Your task to perform on an android device: Show the shopping cart on target. Search for "logitech g502" on target, select the first entry, add it to the cart, then select checkout. Image 0: 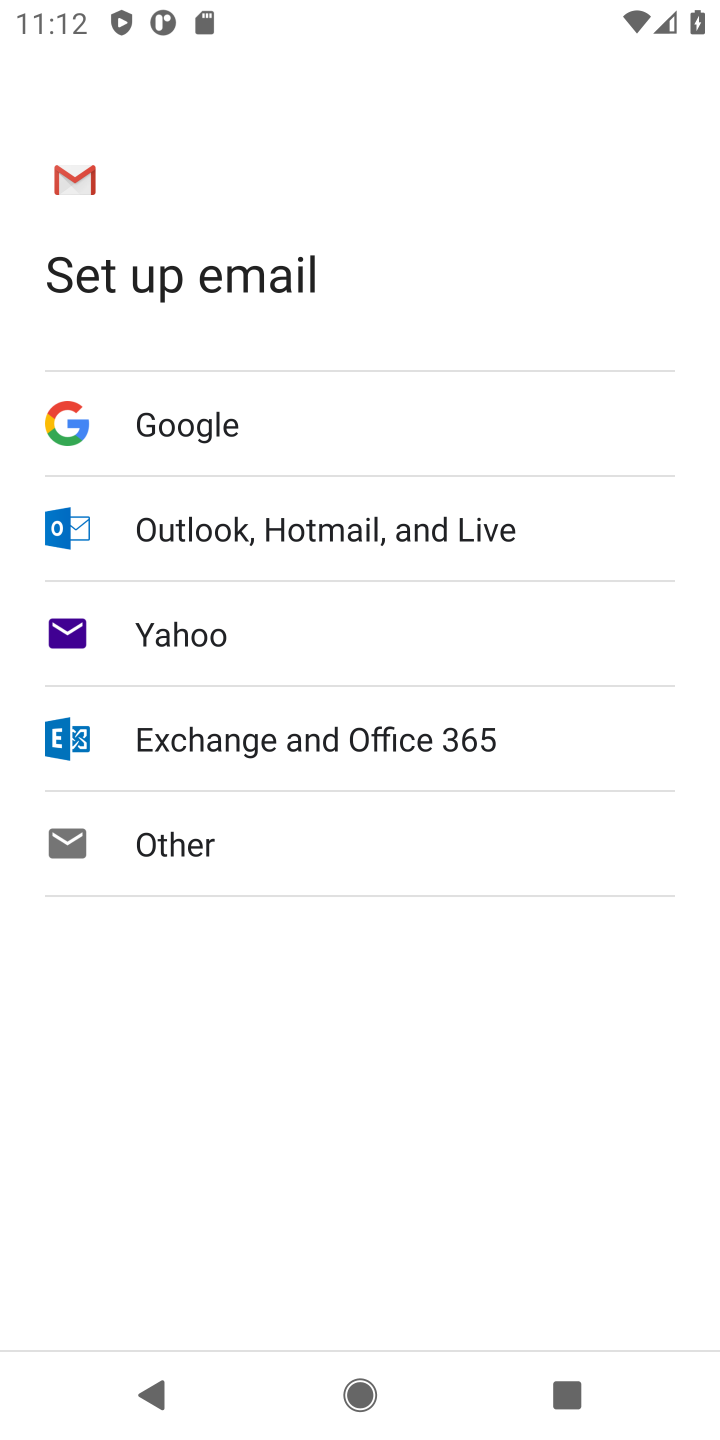
Step 0: press home button
Your task to perform on an android device: Show the shopping cart on target. Search for "logitech g502" on target, select the first entry, add it to the cart, then select checkout. Image 1: 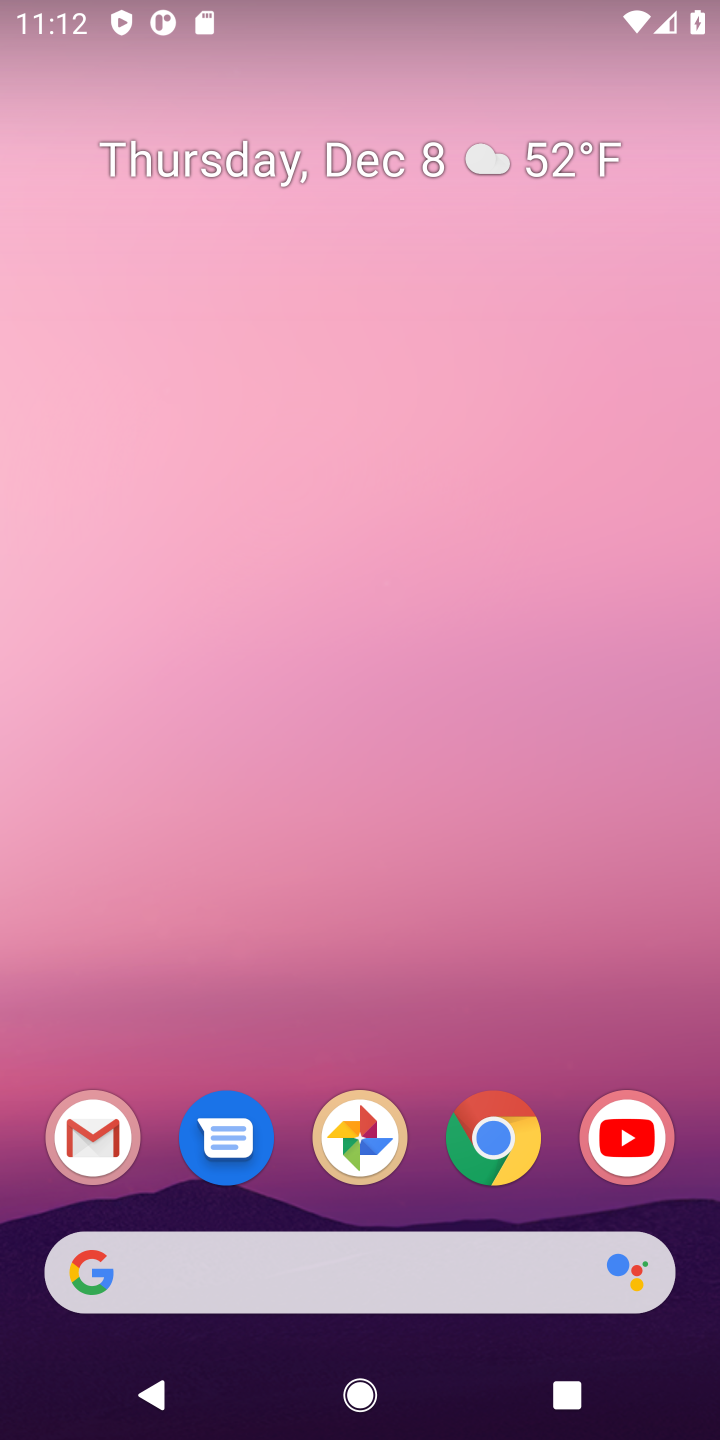
Step 1: click (494, 1140)
Your task to perform on an android device: Show the shopping cart on target. Search for "logitech g502" on target, select the first entry, add it to the cart, then select checkout. Image 2: 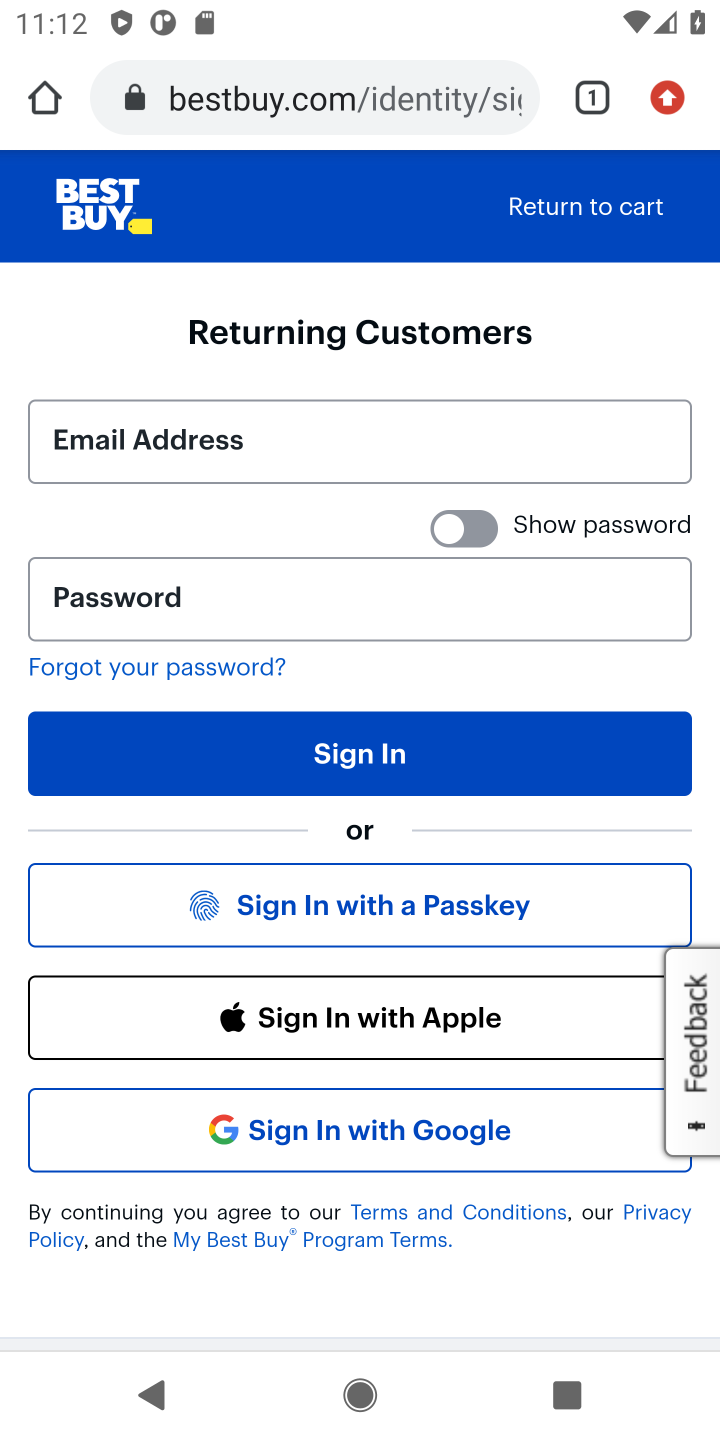
Step 2: click (328, 83)
Your task to perform on an android device: Show the shopping cart on target. Search for "logitech g502" on target, select the first entry, add it to the cart, then select checkout. Image 3: 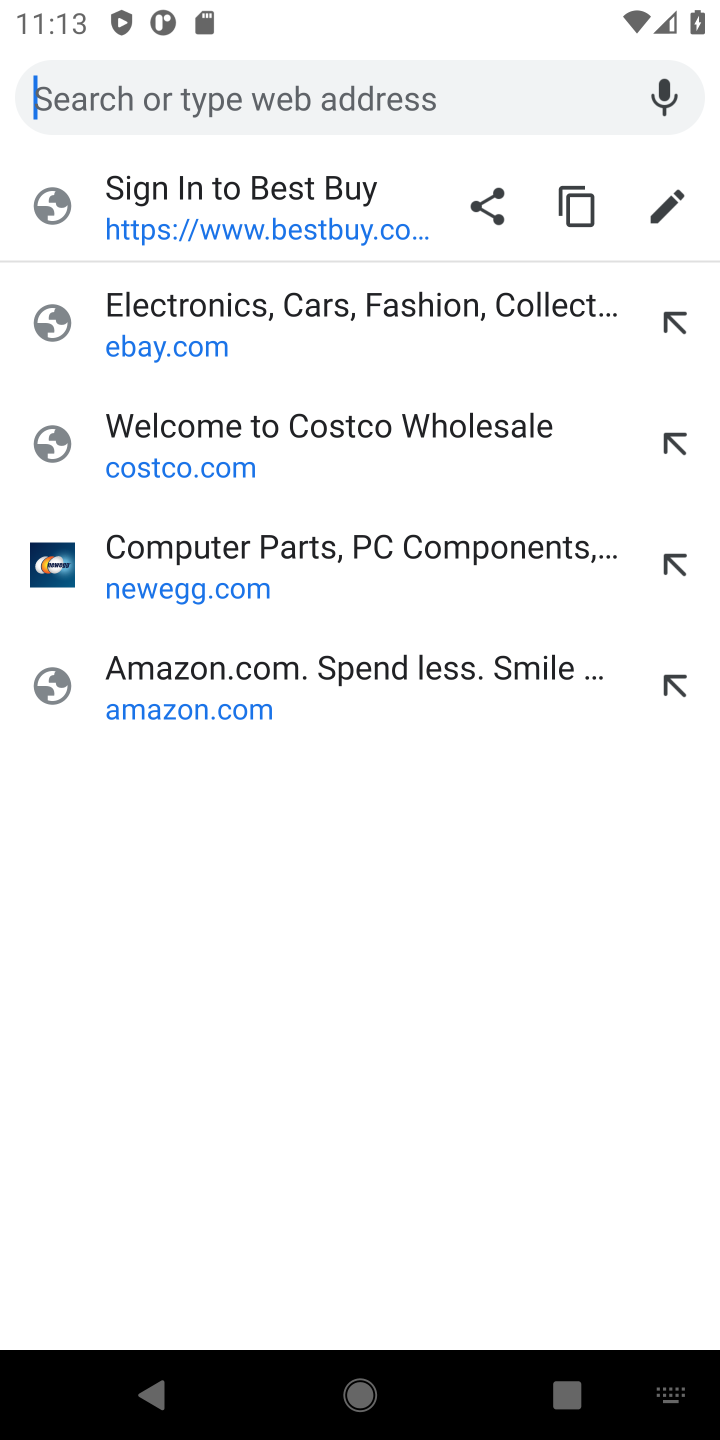
Step 3: type "target"
Your task to perform on an android device: Show the shopping cart on target. Search for "logitech g502" on target, select the first entry, add it to the cart, then select checkout. Image 4: 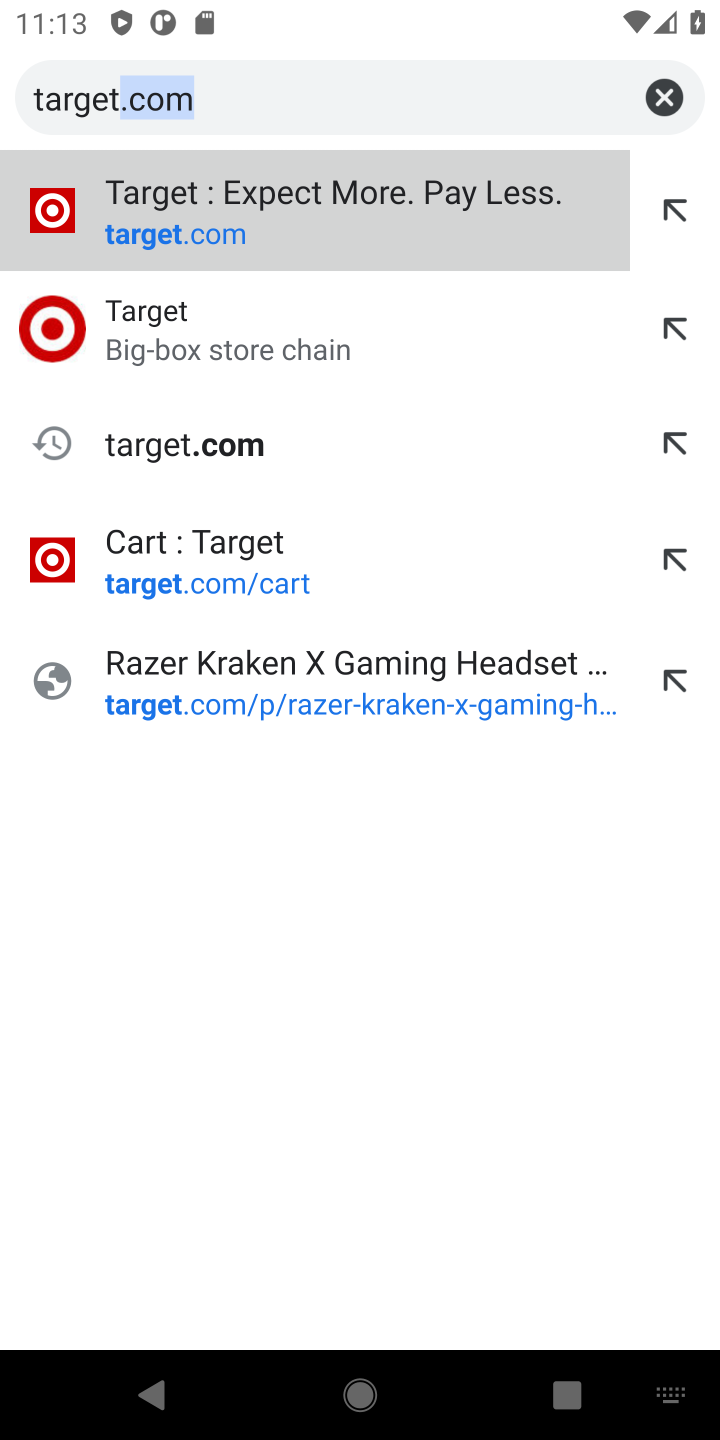
Step 4: press enter
Your task to perform on an android device: Show the shopping cart on target. Search for "logitech g502" on target, select the first entry, add it to the cart, then select checkout. Image 5: 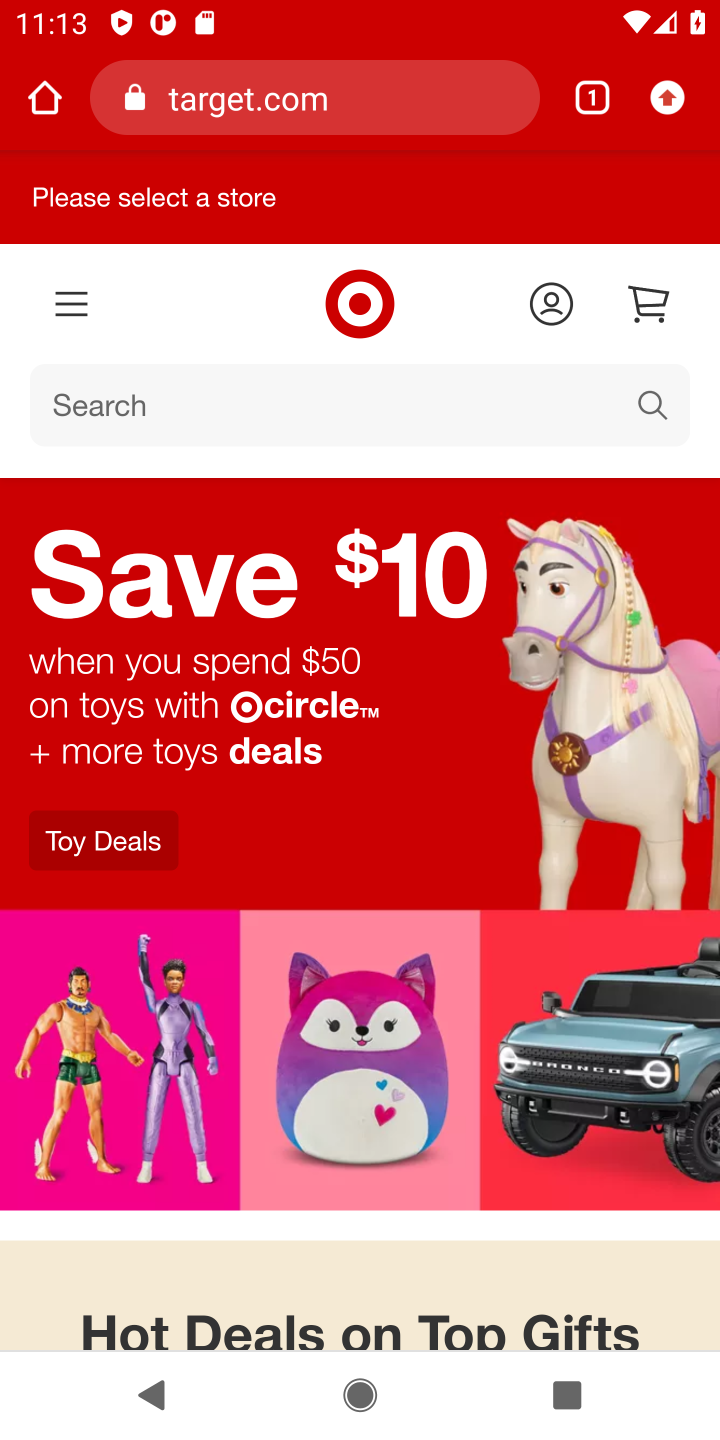
Step 5: click (205, 430)
Your task to perform on an android device: Show the shopping cart on target. Search for "logitech g502" on target, select the first entry, add it to the cart, then select checkout. Image 6: 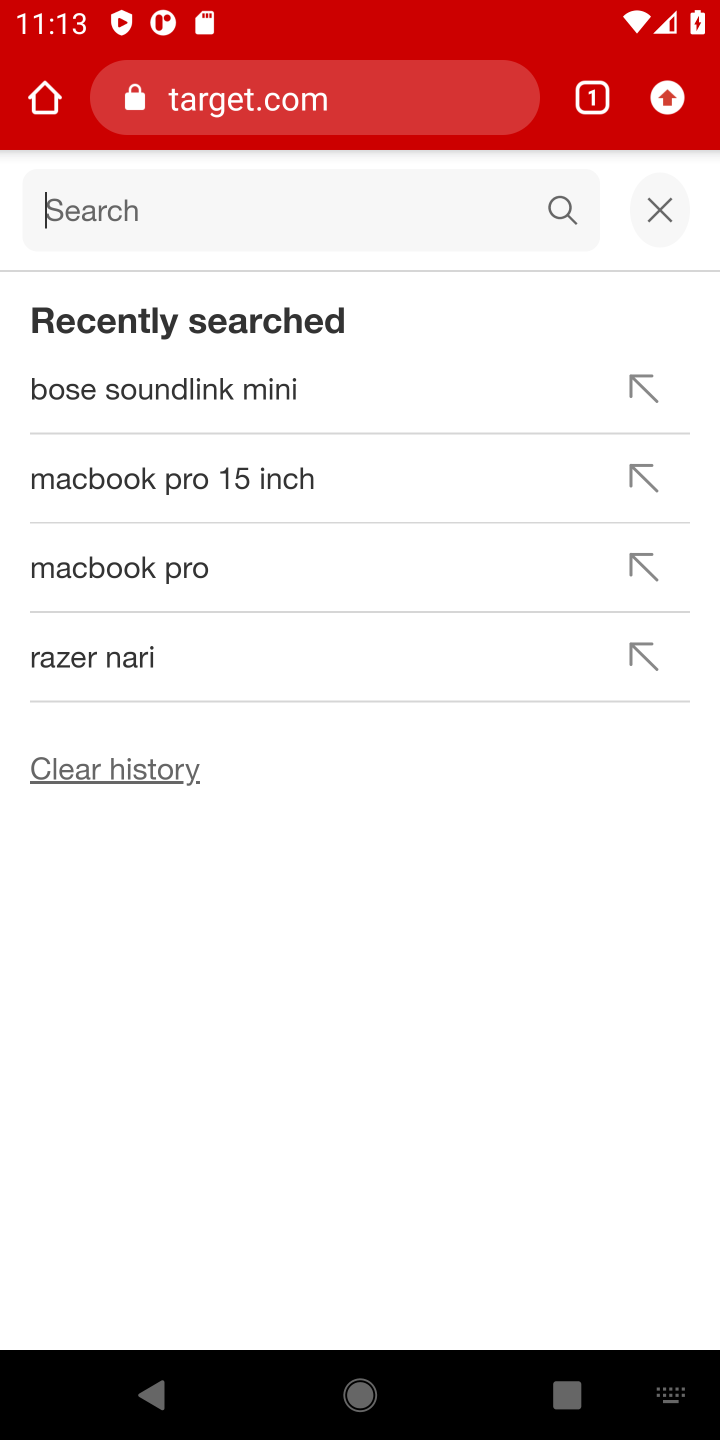
Step 6: type "logitech g502"
Your task to perform on an android device: Show the shopping cart on target. Search for "logitech g502" on target, select the first entry, add it to the cart, then select checkout. Image 7: 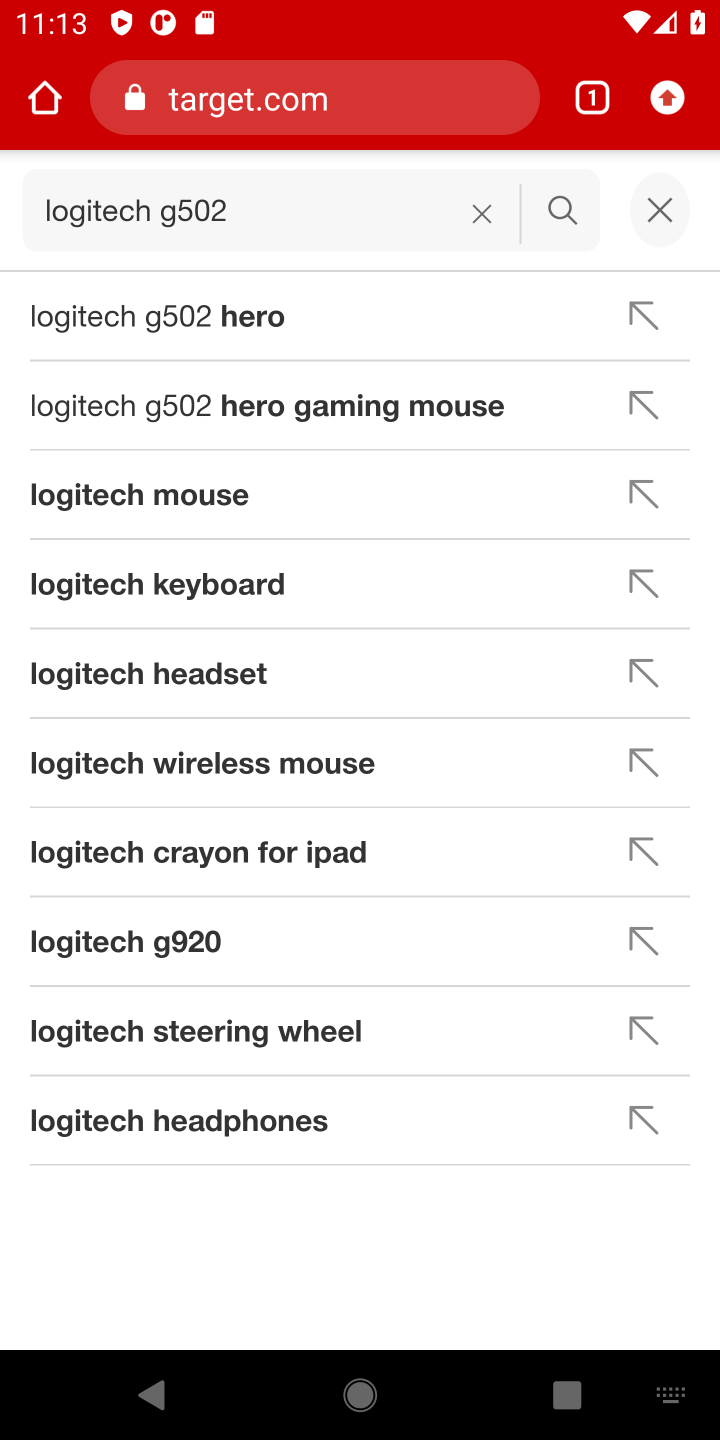
Step 7: press enter
Your task to perform on an android device: Show the shopping cart on target. Search for "logitech g502" on target, select the first entry, add it to the cart, then select checkout. Image 8: 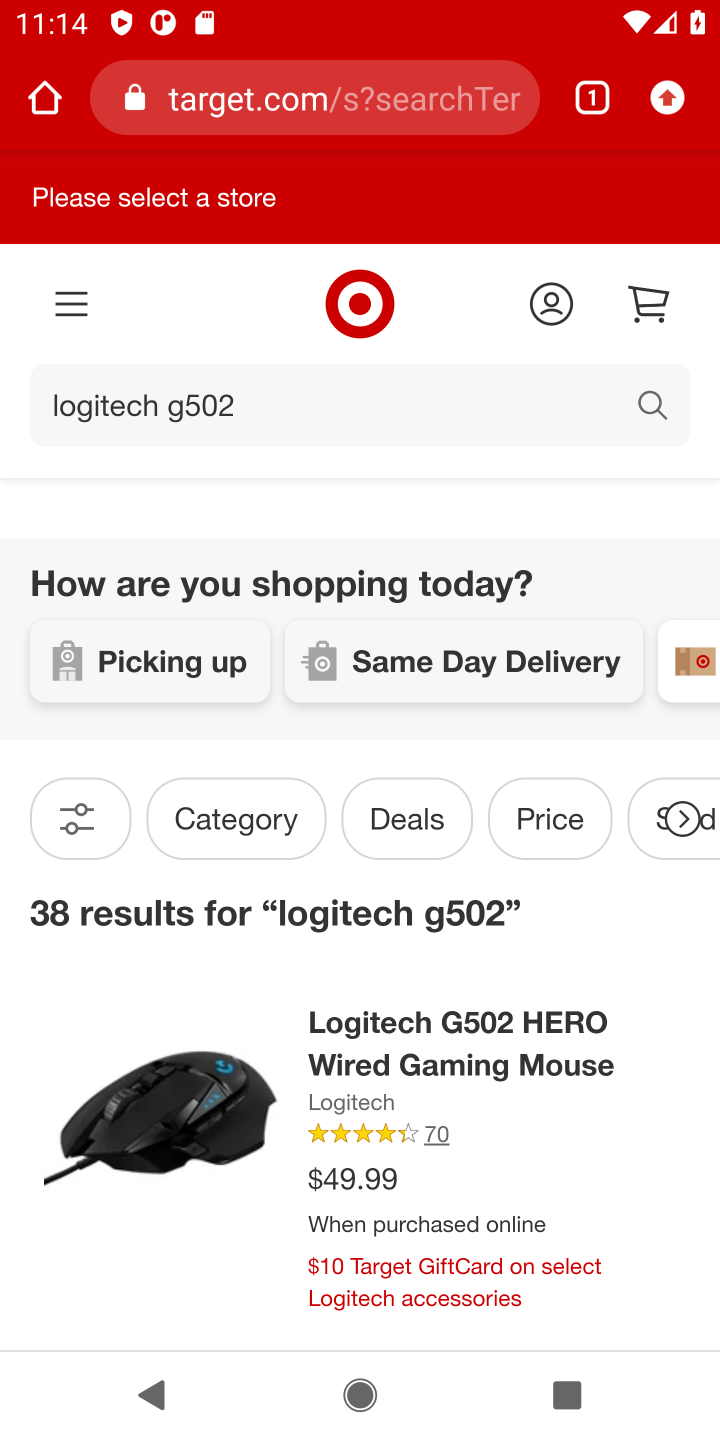
Step 8: drag from (494, 1185) to (587, 421)
Your task to perform on an android device: Show the shopping cart on target. Search for "logitech g502" on target, select the first entry, add it to the cart, then select checkout. Image 9: 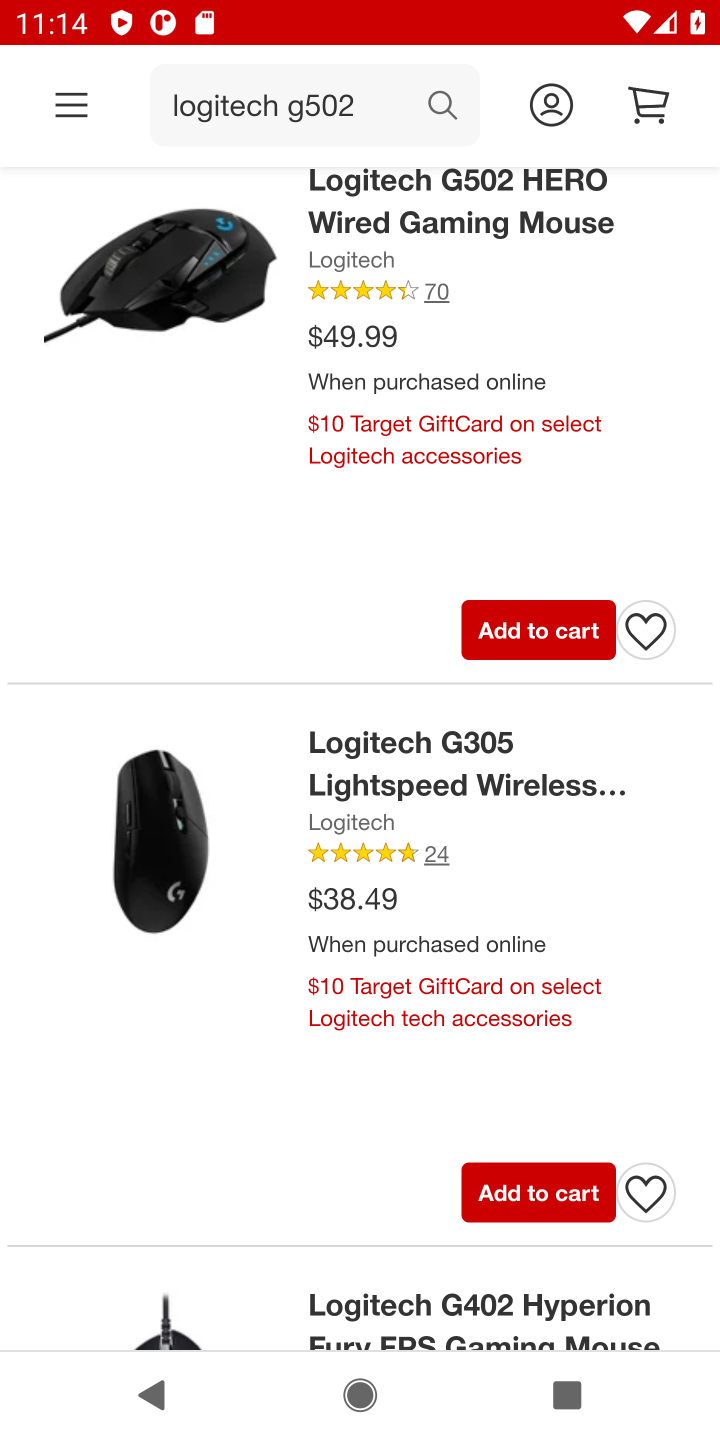
Step 9: click (497, 631)
Your task to perform on an android device: Show the shopping cart on target. Search for "logitech g502" on target, select the first entry, add it to the cart, then select checkout. Image 10: 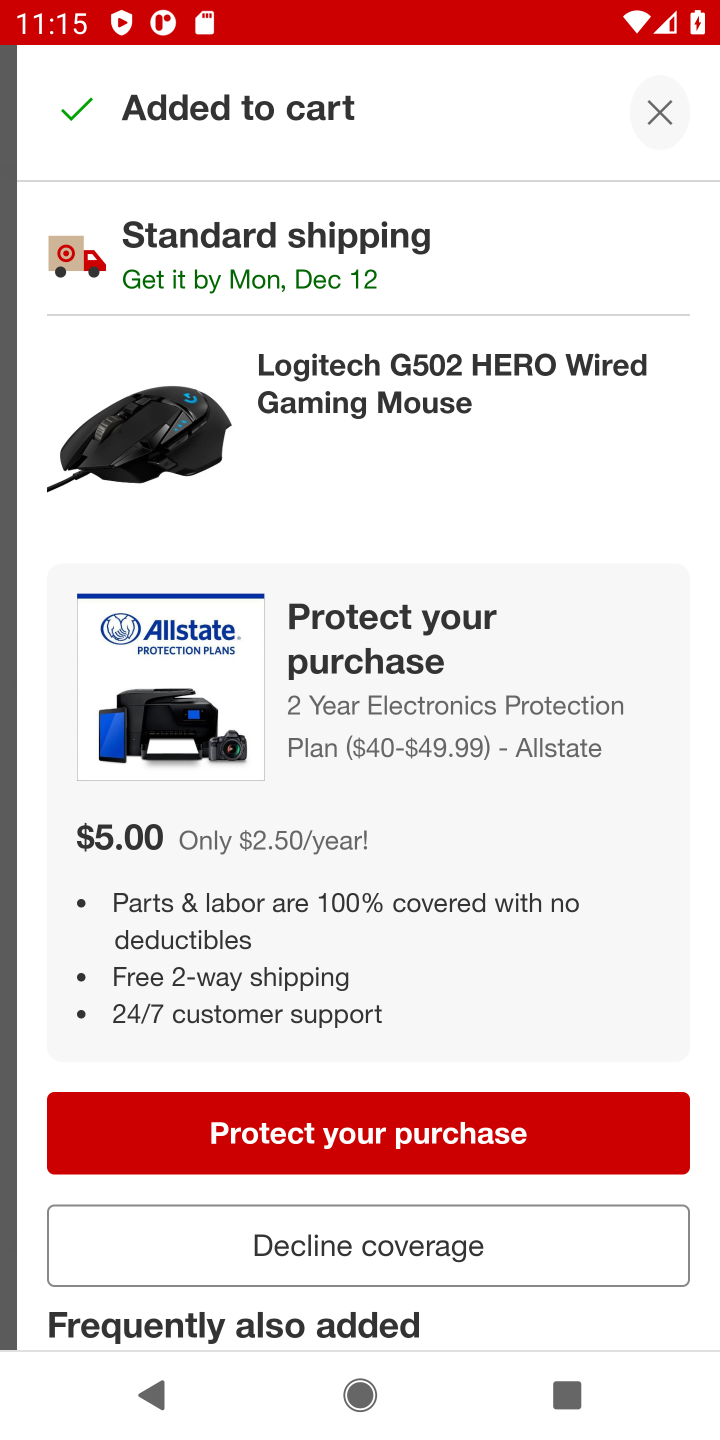
Step 10: click (361, 1136)
Your task to perform on an android device: Show the shopping cart on target. Search for "logitech g502" on target, select the first entry, add it to the cart, then select checkout. Image 11: 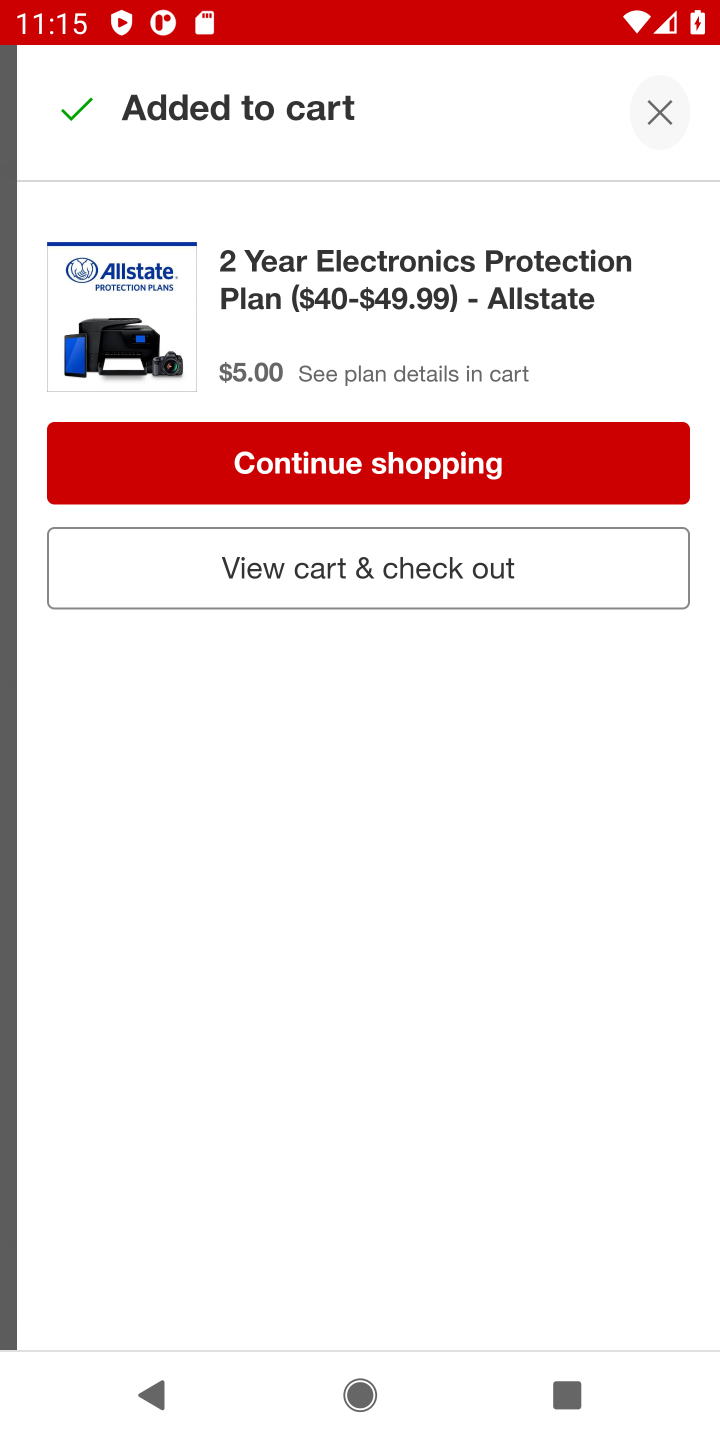
Step 11: click (346, 553)
Your task to perform on an android device: Show the shopping cart on target. Search for "logitech g502" on target, select the first entry, add it to the cart, then select checkout. Image 12: 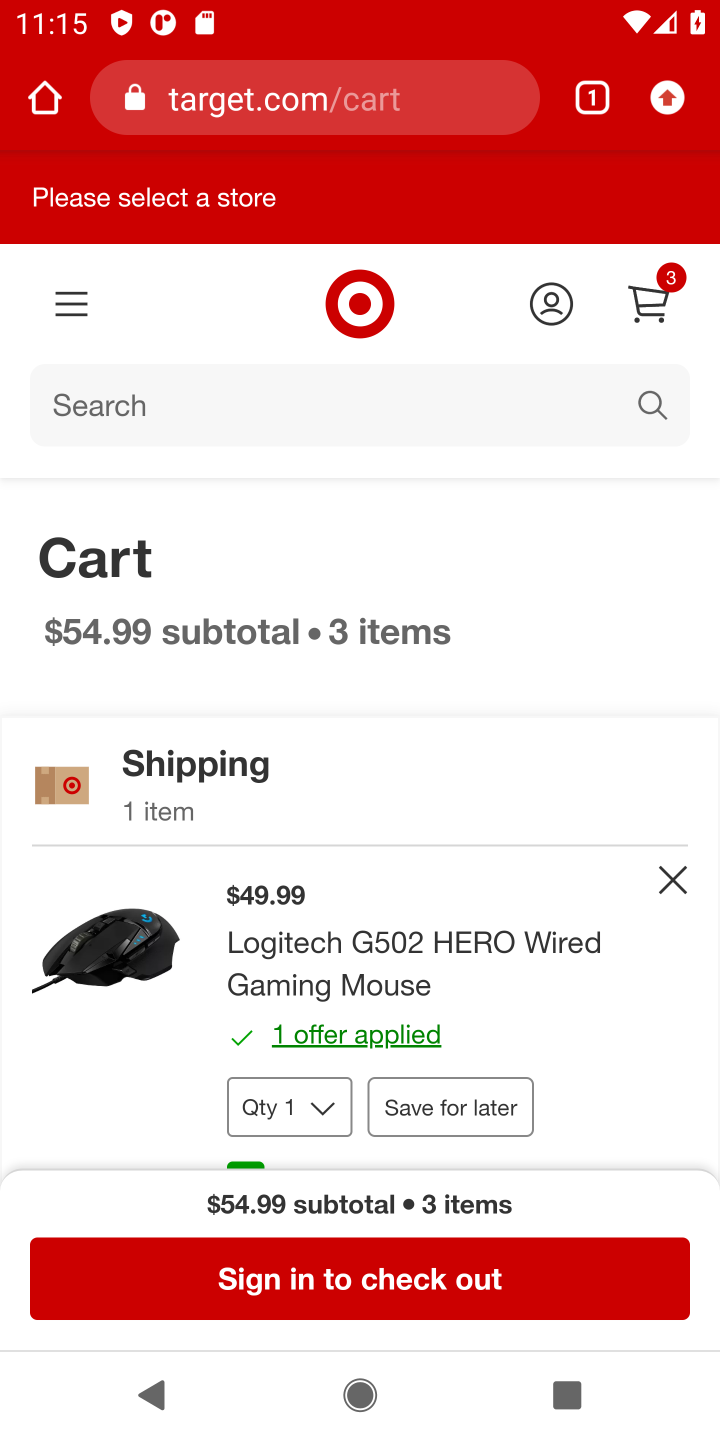
Step 12: click (346, 1293)
Your task to perform on an android device: Show the shopping cart on target. Search for "logitech g502" on target, select the first entry, add it to the cart, then select checkout. Image 13: 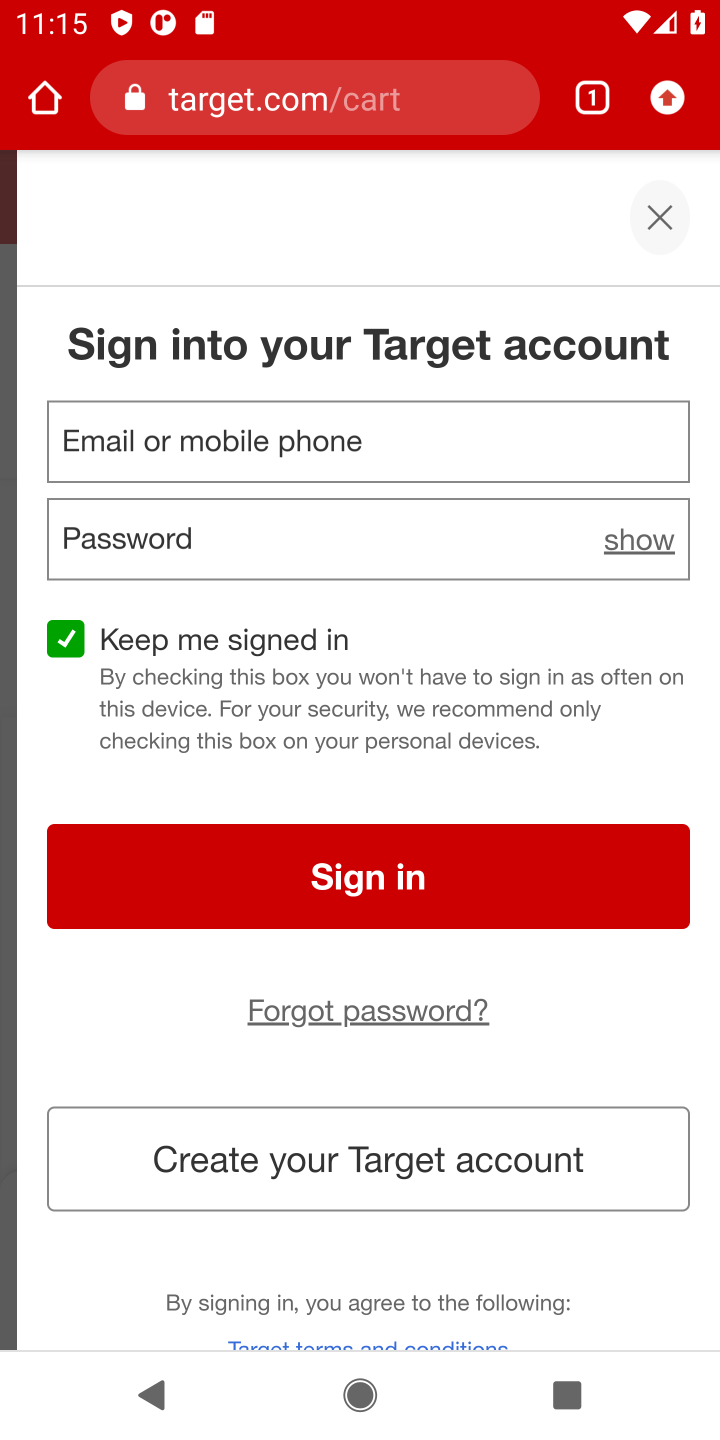
Step 13: task complete